Your task to perform on an android device: open app "Cash App" (install if not already installed) and enter user name: "submodules@gmail.com" and password: "heavenly" Image 0: 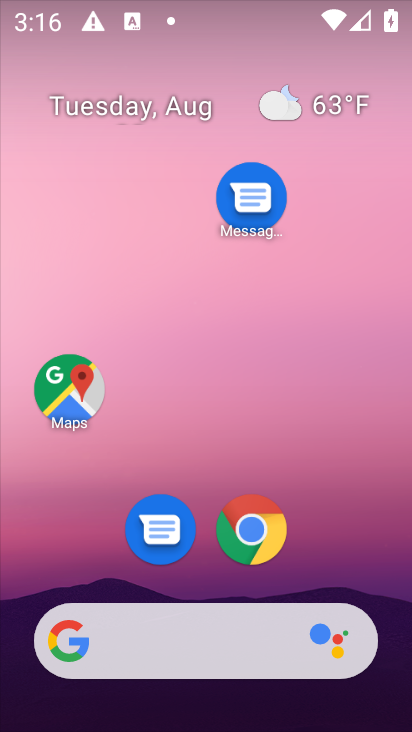
Step 0: drag from (316, 529) to (22, 203)
Your task to perform on an android device: open app "Cash App" (install if not already installed) and enter user name: "submodules@gmail.com" and password: "heavenly" Image 1: 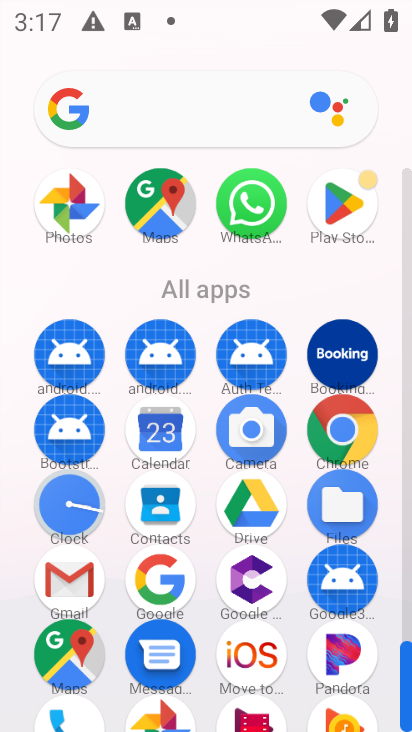
Step 1: click (335, 223)
Your task to perform on an android device: open app "Cash App" (install if not already installed) and enter user name: "submodules@gmail.com" and password: "heavenly" Image 2: 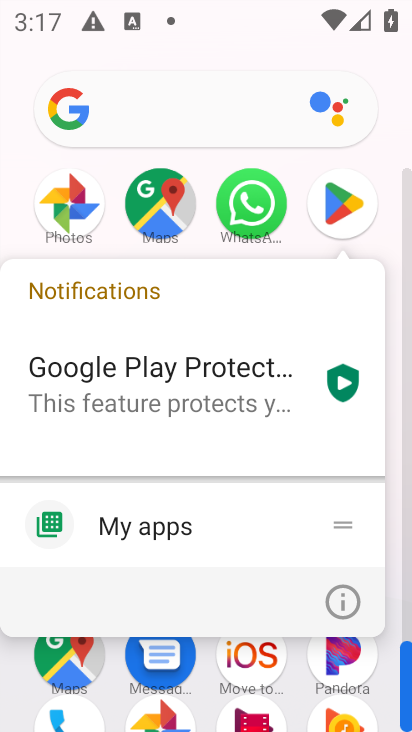
Step 2: click (333, 213)
Your task to perform on an android device: open app "Cash App" (install if not already installed) and enter user name: "submodules@gmail.com" and password: "heavenly" Image 3: 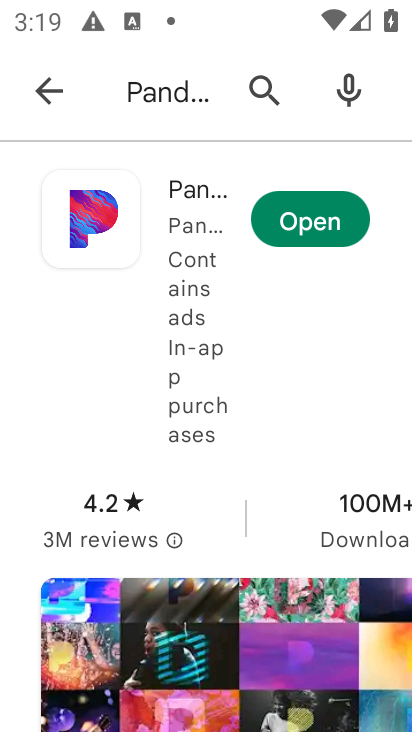
Step 3: press back button
Your task to perform on an android device: open app "Cash App" (install if not already installed) and enter user name: "submodules@gmail.com" and password: "heavenly" Image 4: 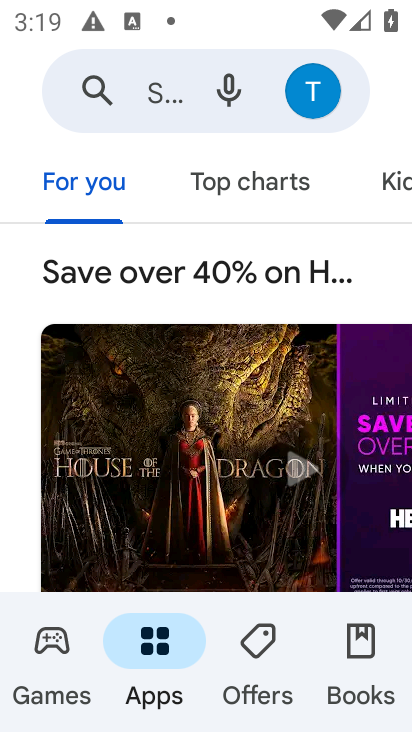
Step 4: click (130, 101)
Your task to perform on an android device: open app "Cash App" (install if not already installed) and enter user name: "submodules@gmail.com" and password: "heavenly" Image 5: 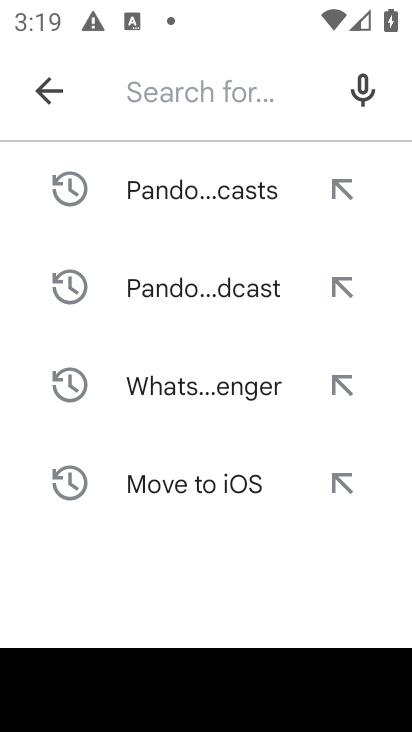
Step 5: type "Cash App"
Your task to perform on an android device: open app "Cash App" (install if not already installed) and enter user name: "submodules@gmail.com" and password: "heavenly" Image 6: 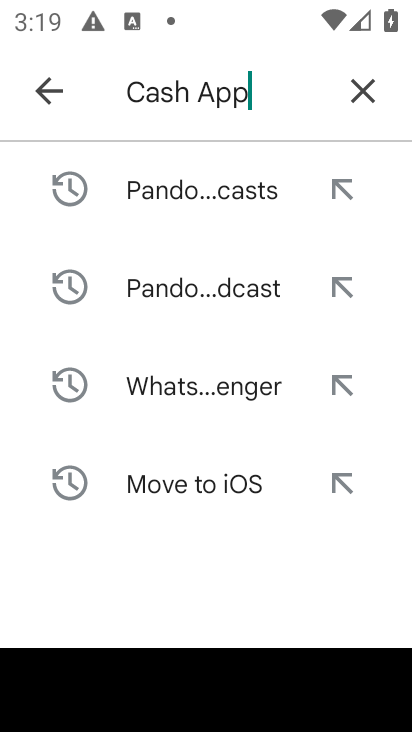
Step 6: press enter
Your task to perform on an android device: open app "Cash App" (install if not already installed) and enter user name: "submodules@gmail.com" and password: "heavenly" Image 7: 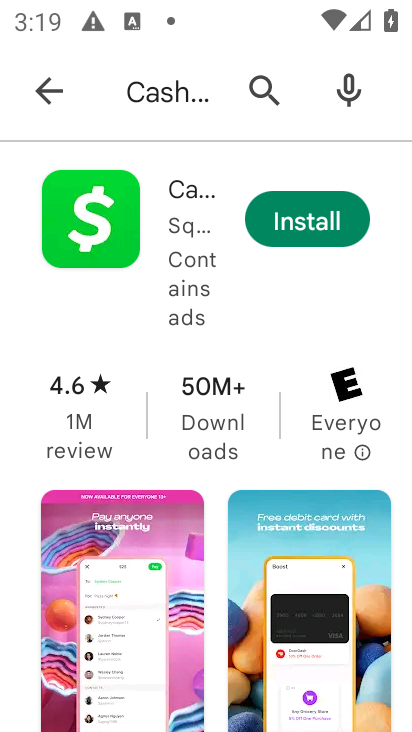
Step 7: click (288, 239)
Your task to perform on an android device: open app "Cash App" (install if not already installed) and enter user name: "submodules@gmail.com" and password: "heavenly" Image 8: 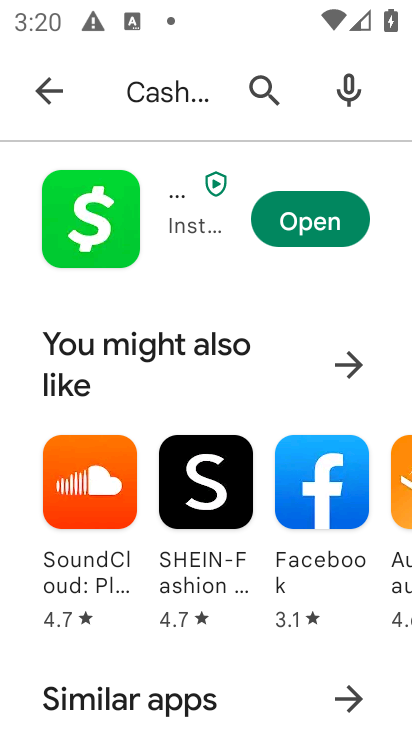
Step 8: click (337, 214)
Your task to perform on an android device: open app "Cash App" (install if not already installed) and enter user name: "submodules@gmail.com" and password: "heavenly" Image 9: 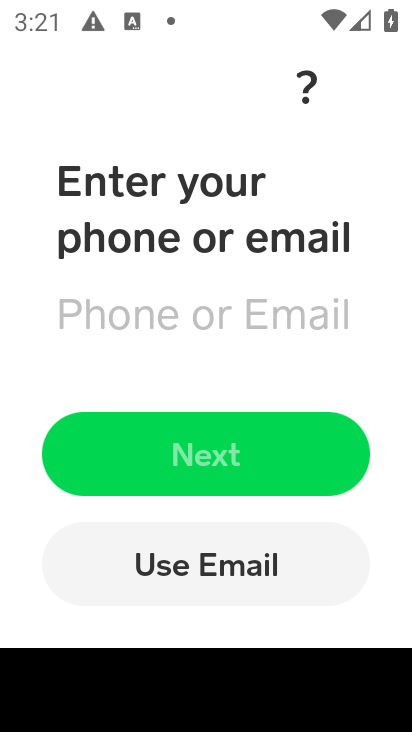
Step 9: type "submodules@gmail.com"
Your task to perform on an android device: open app "Cash App" (install if not already installed) and enter user name: "submodules@gmail.com" and password: "heavenly" Image 10: 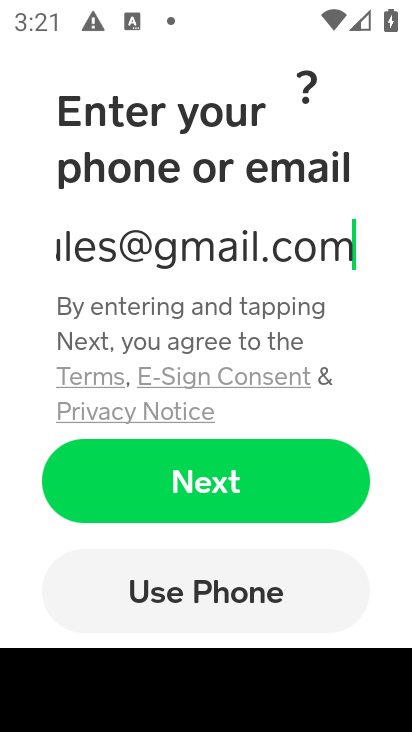
Step 10: press enter
Your task to perform on an android device: open app "Cash App" (install if not already installed) and enter user name: "submodules@gmail.com" and password: "heavenly" Image 11: 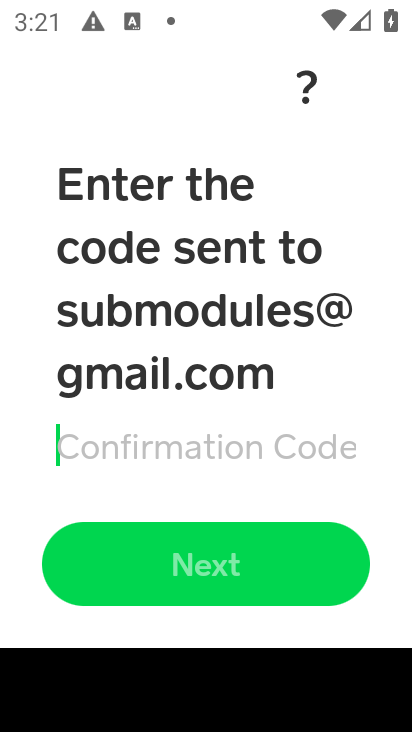
Step 11: type ""
Your task to perform on an android device: open app "Cash App" (install if not already installed) and enter user name: "submodules@gmail.com" and password: "heavenly" Image 12: 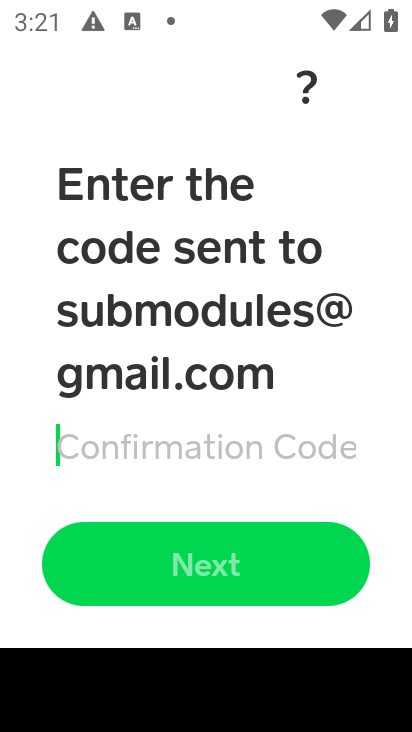
Step 12: press enter
Your task to perform on an android device: open app "Cash App" (install if not already installed) and enter user name: "submodules@gmail.com" and password: "heavenly" Image 13: 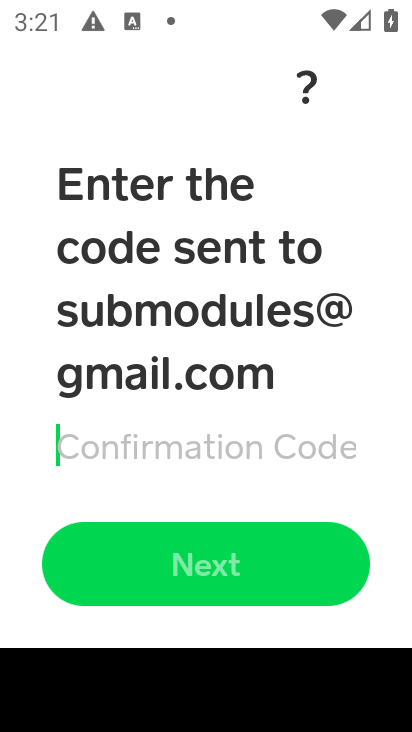
Step 13: type "heavenly"
Your task to perform on an android device: open app "Cash App" (install if not already installed) and enter user name: "submodules@gmail.com" and password: "heavenly" Image 14: 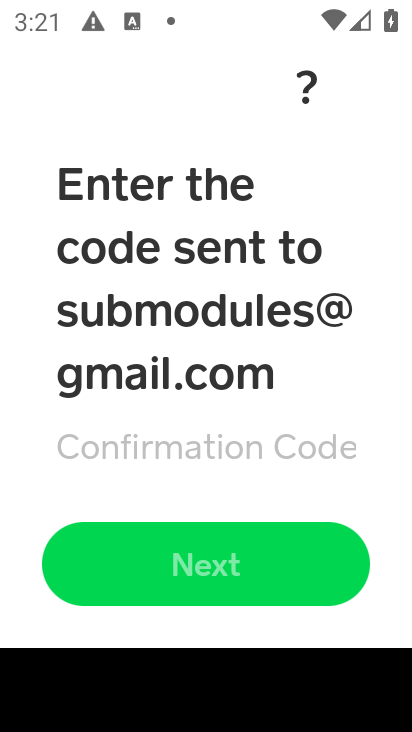
Step 14: click (229, 590)
Your task to perform on an android device: open app "Cash App" (install if not already installed) and enter user name: "submodules@gmail.com" and password: "heavenly" Image 15: 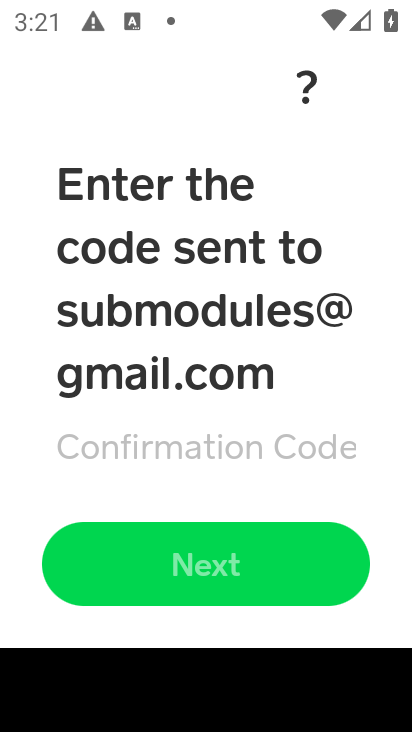
Step 15: task complete